Your task to perform on an android device: toggle wifi Image 0: 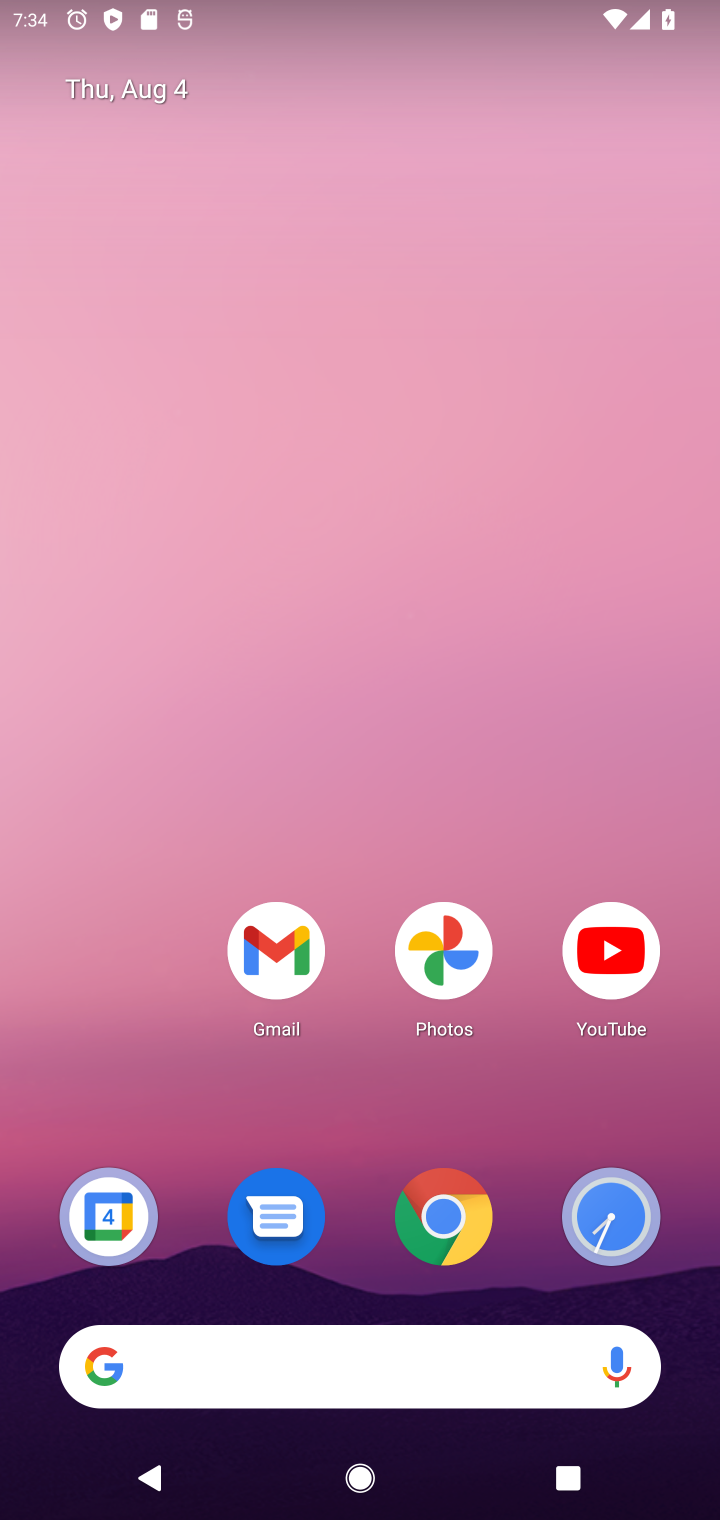
Step 0: drag from (438, 16) to (434, 1255)
Your task to perform on an android device: toggle wifi Image 1: 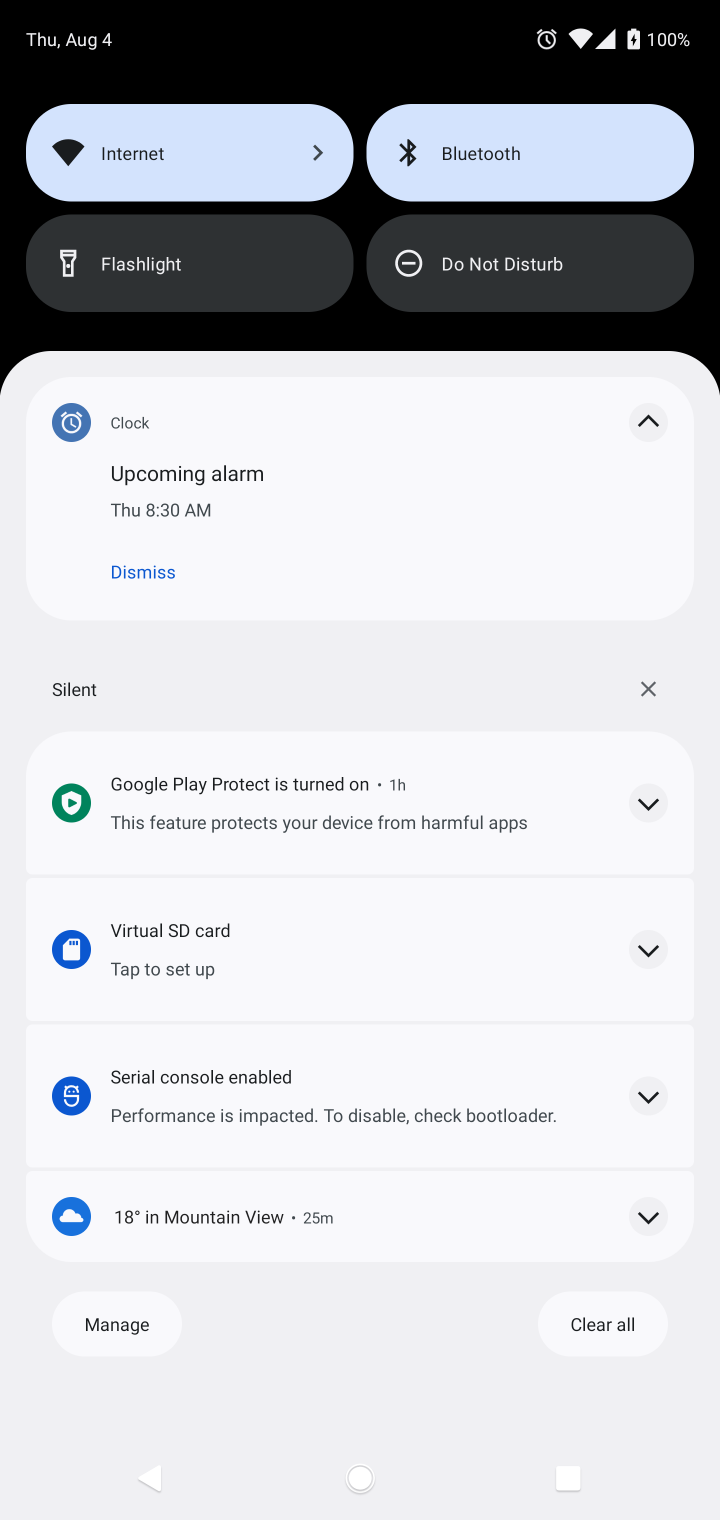
Step 1: click (112, 182)
Your task to perform on an android device: toggle wifi Image 2: 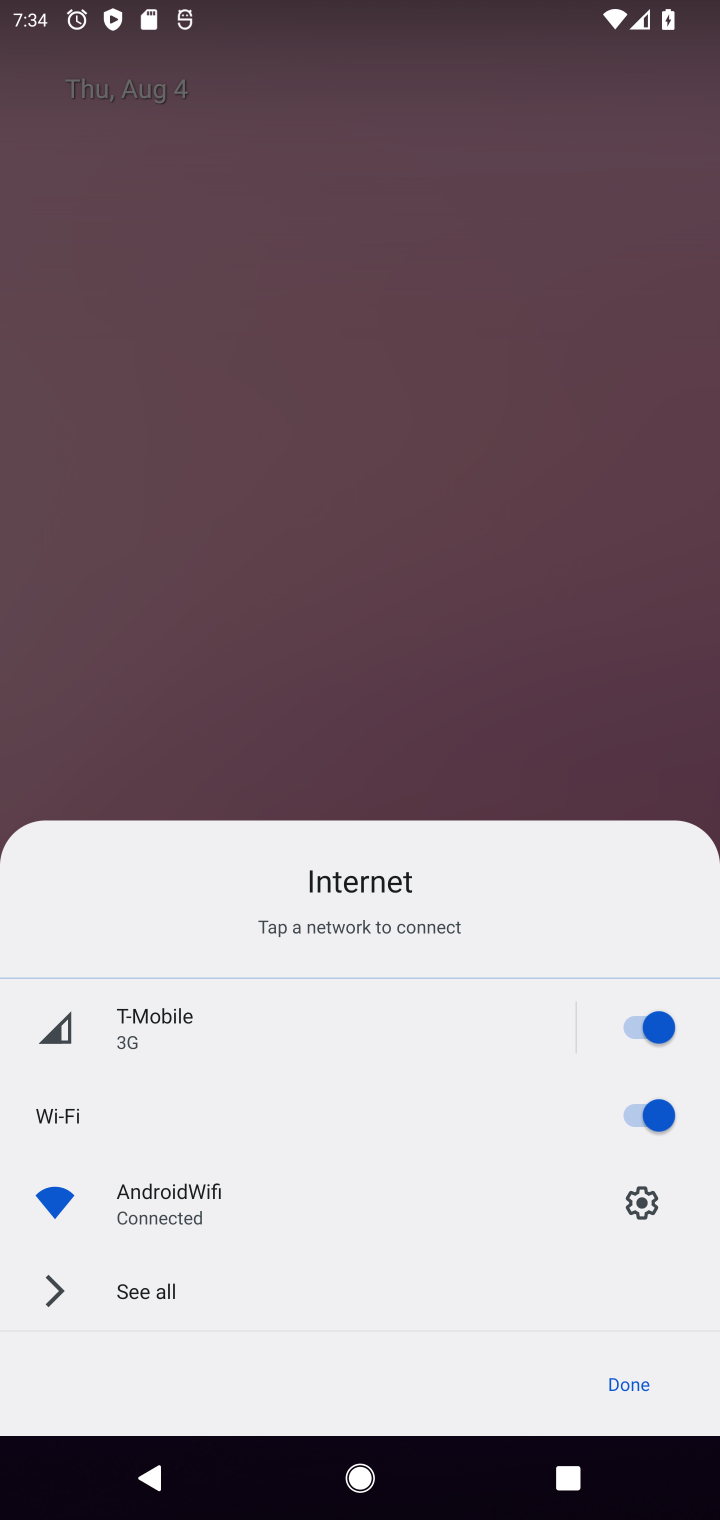
Step 2: click (629, 1110)
Your task to perform on an android device: toggle wifi Image 3: 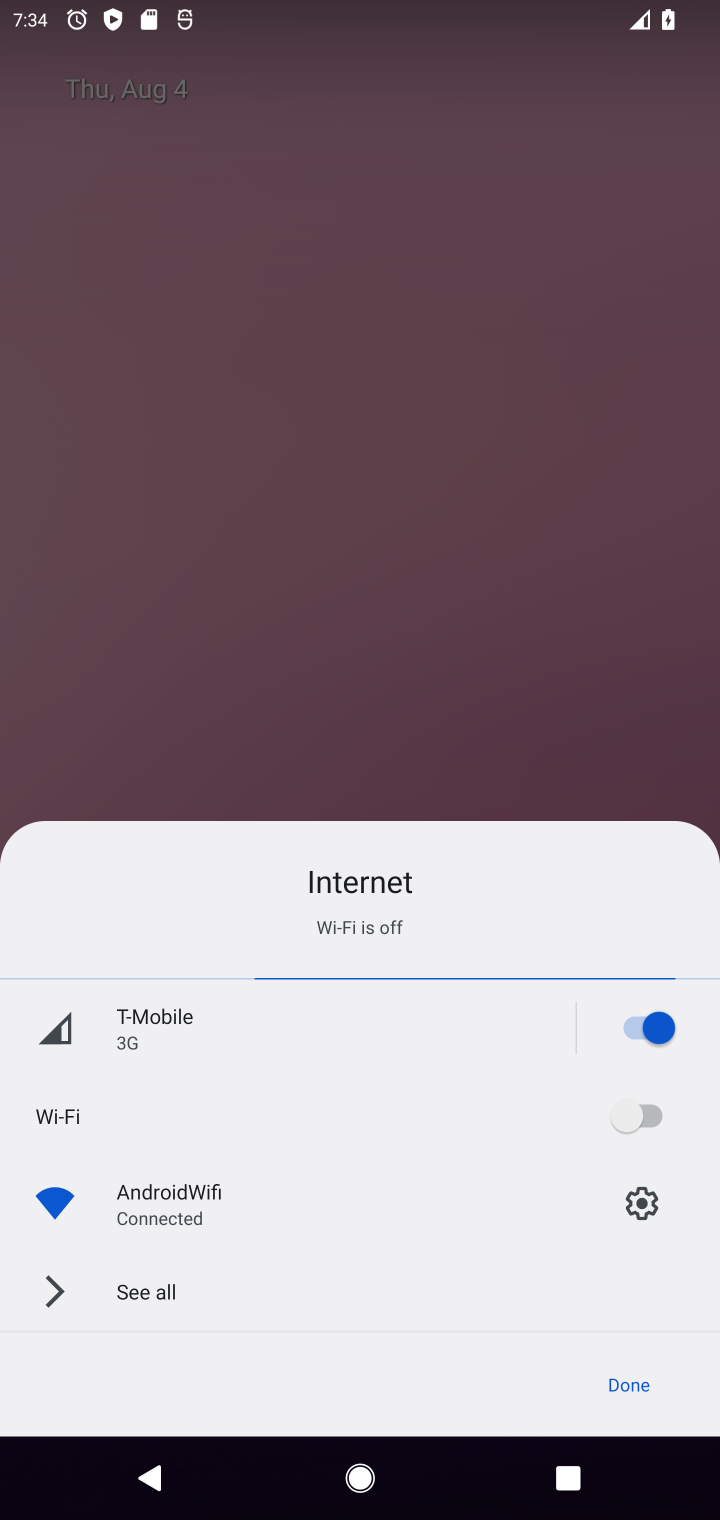
Step 3: task complete